Your task to perform on an android device: Show me popular videos on Youtube Image 0: 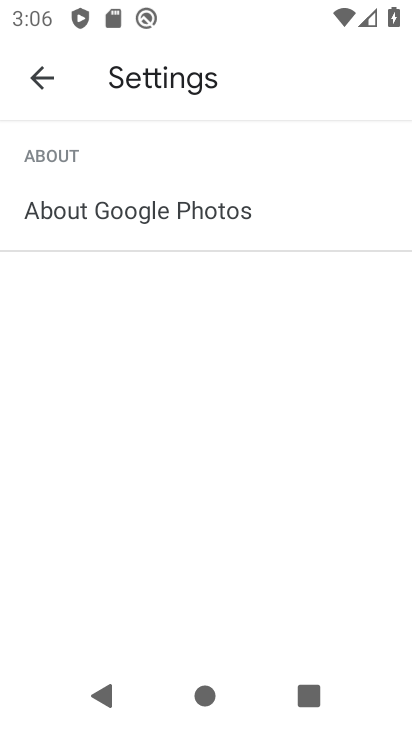
Step 0: press home button
Your task to perform on an android device: Show me popular videos on Youtube Image 1: 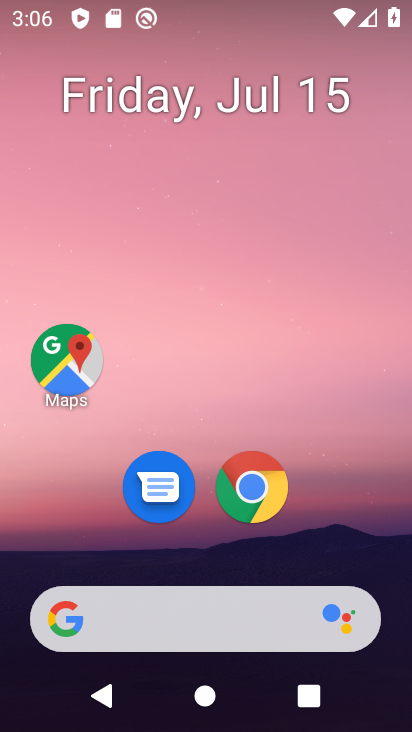
Step 1: drag from (208, 519) to (263, 89)
Your task to perform on an android device: Show me popular videos on Youtube Image 2: 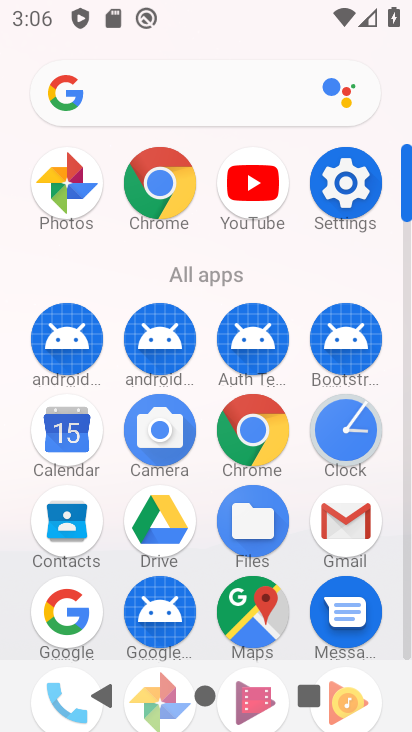
Step 2: drag from (192, 406) to (203, 214)
Your task to perform on an android device: Show me popular videos on Youtube Image 3: 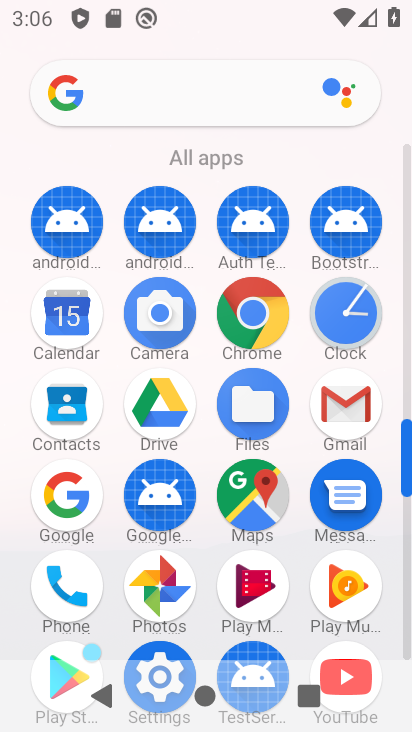
Step 3: drag from (253, 494) to (256, 302)
Your task to perform on an android device: Show me popular videos on Youtube Image 4: 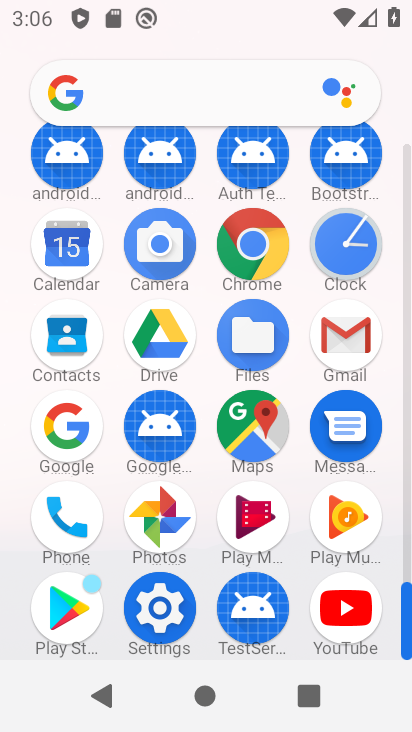
Step 4: drag from (279, 409) to (267, 296)
Your task to perform on an android device: Show me popular videos on Youtube Image 5: 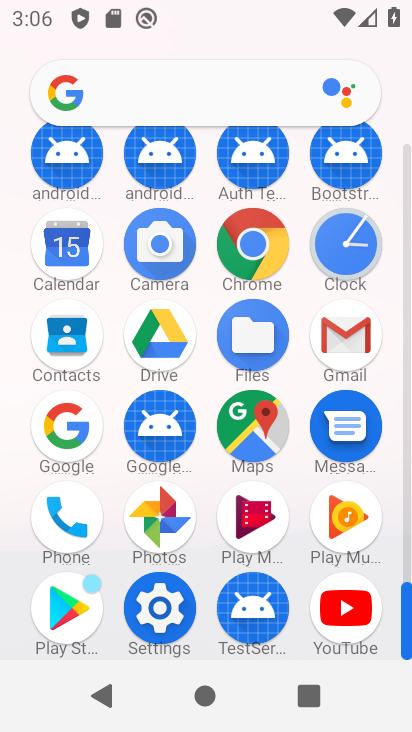
Step 5: click (326, 626)
Your task to perform on an android device: Show me popular videos on Youtube Image 6: 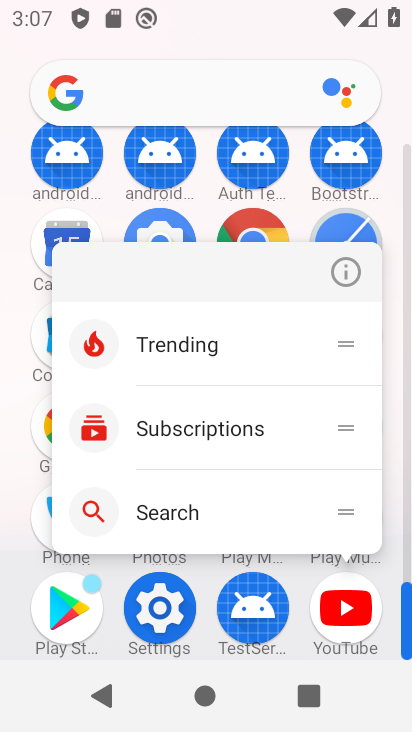
Step 6: click (326, 626)
Your task to perform on an android device: Show me popular videos on Youtube Image 7: 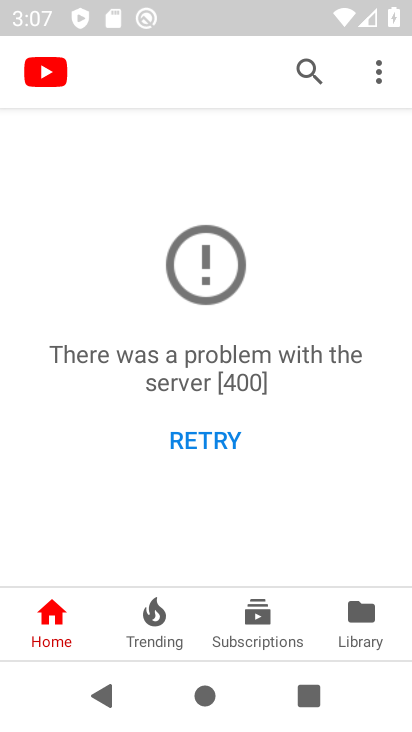
Step 7: click (184, 439)
Your task to perform on an android device: Show me popular videos on Youtube Image 8: 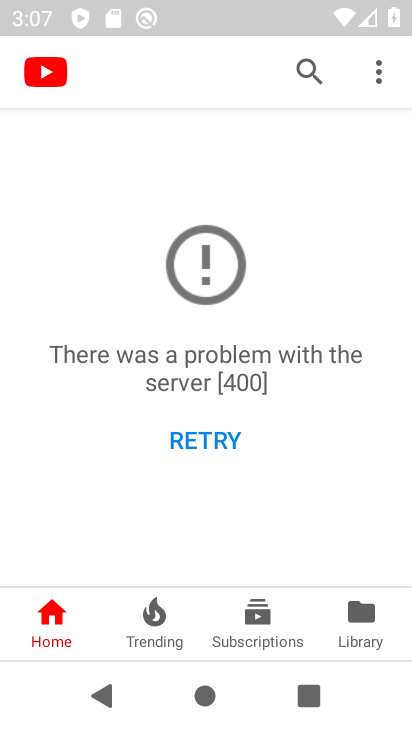
Step 8: click (49, 645)
Your task to perform on an android device: Show me popular videos on Youtube Image 9: 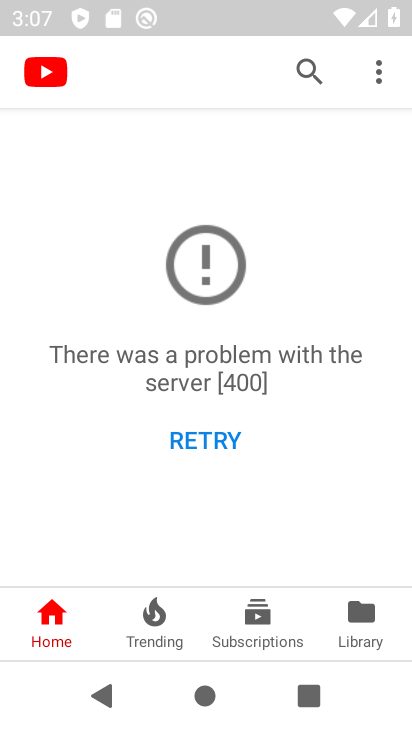
Step 9: click (43, 612)
Your task to perform on an android device: Show me popular videos on Youtube Image 10: 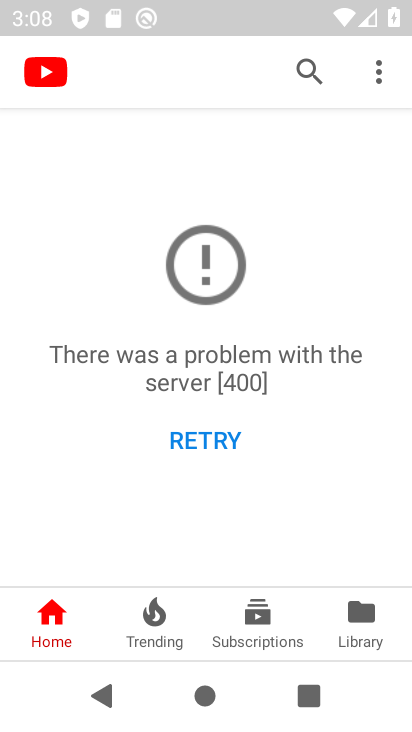
Step 10: task complete